Your task to perform on an android device: check battery use Image 0: 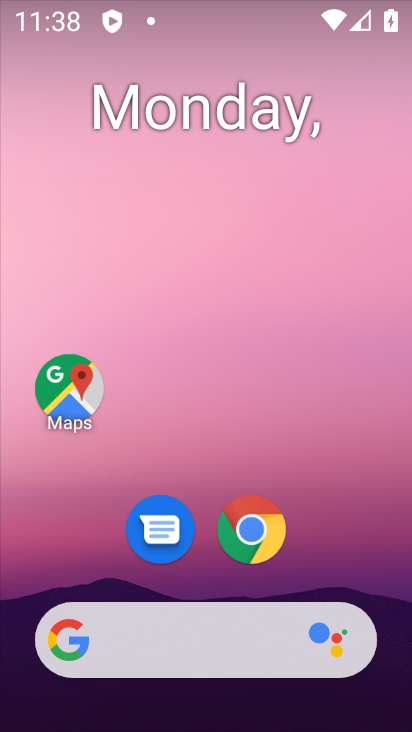
Step 0: drag from (38, 602) to (187, 201)
Your task to perform on an android device: check battery use Image 1: 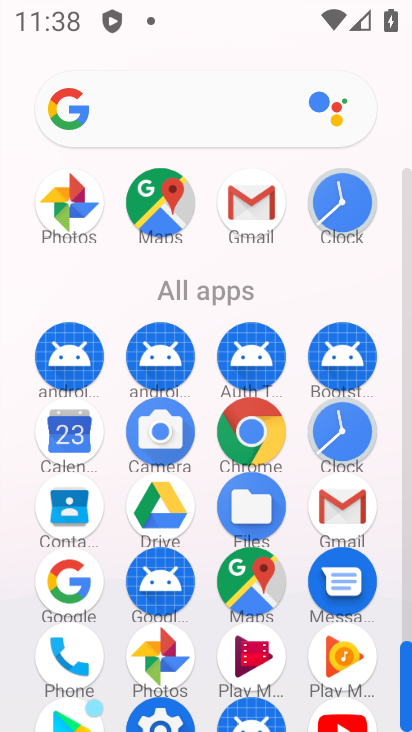
Step 1: drag from (231, 654) to (274, 428)
Your task to perform on an android device: check battery use Image 2: 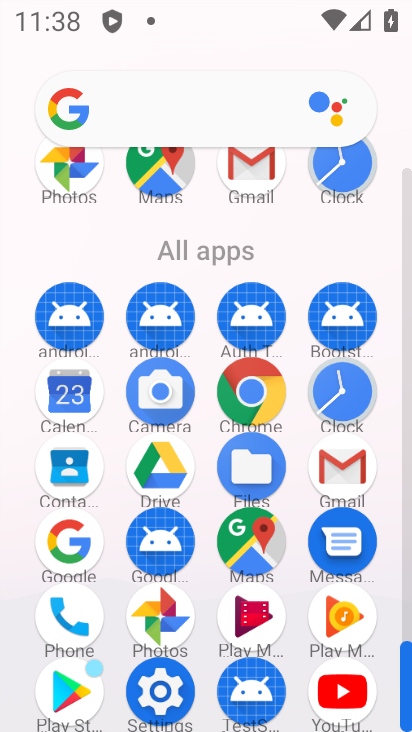
Step 2: click (177, 676)
Your task to perform on an android device: check battery use Image 3: 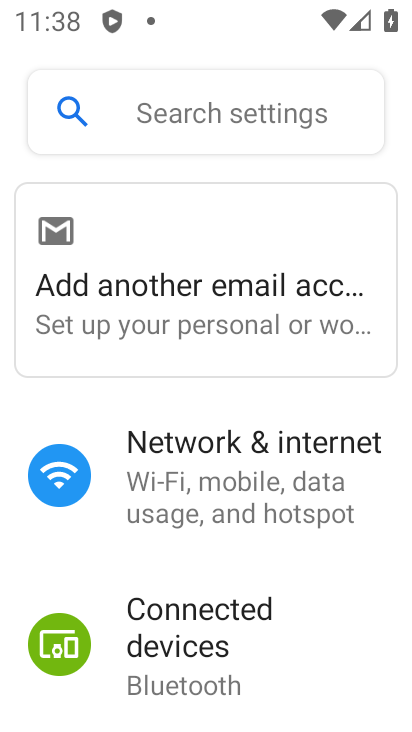
Step 3: drag from (190, 679) to (302, 241)
Your task to perform on an android device: check battery use Image 4: 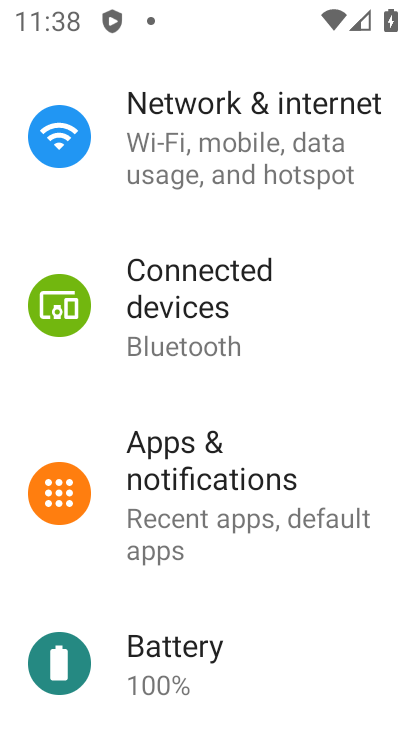
Step 4: click (165, 668)
Your task to perform on an android device: check battery use Image 5: 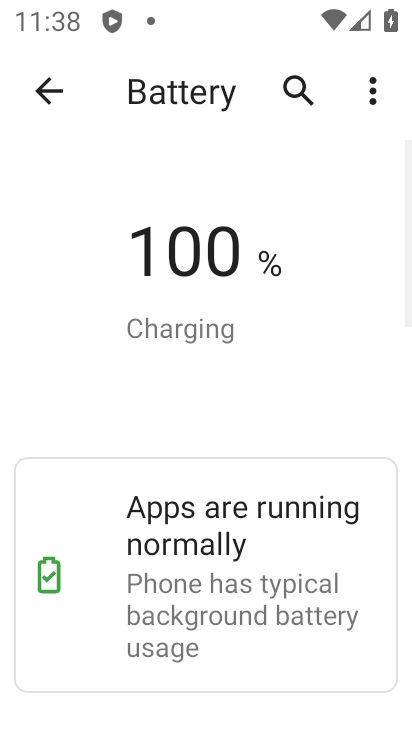
Step 5: click (377, 102)
Your task to perform on an android device: check battery use Image 6: 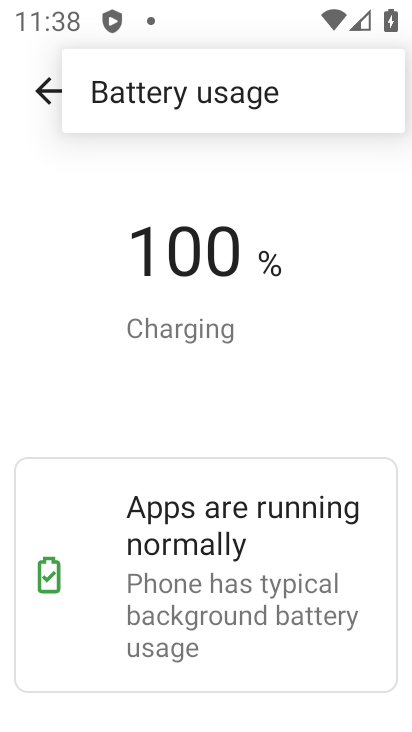
Step 6: click (363, 103)
Your task to perform on an android device: check battery use Image 7: 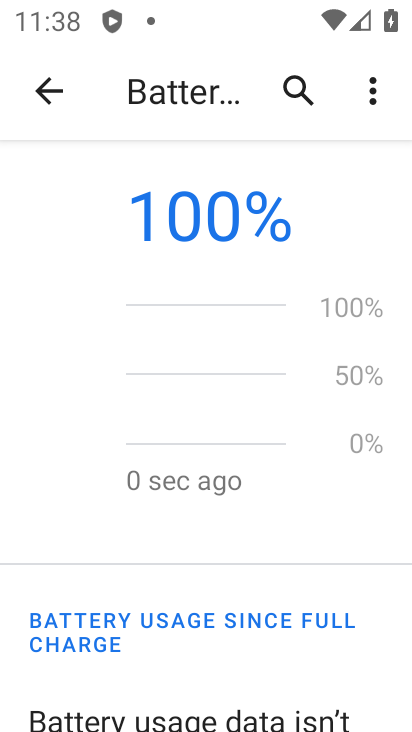
Step 7: click (375, 95)
Your task to perform on an android device: check battery use Image 8: 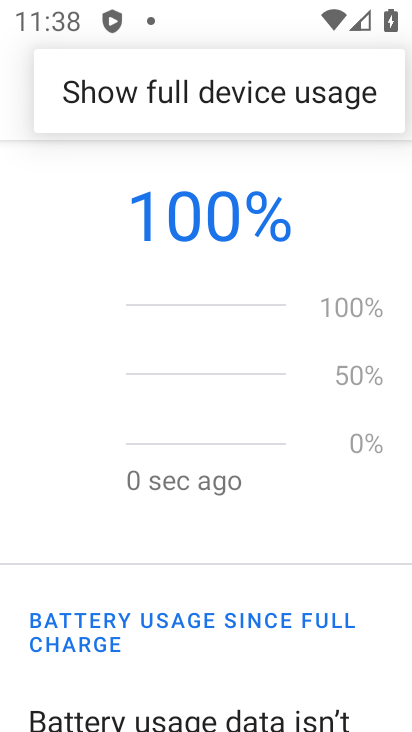
Step 8: task complete